Your task to perform on an android device: open the mobile data screen to see how much data has been used Image 0: 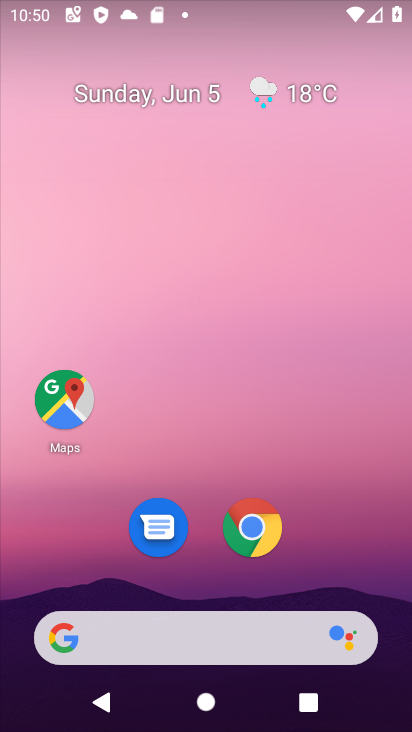
Step 0: drag from (305, 516) to (223, 42)
Your task to perform on an android device: open the mobile data screen to see how much data has been used Image 1: 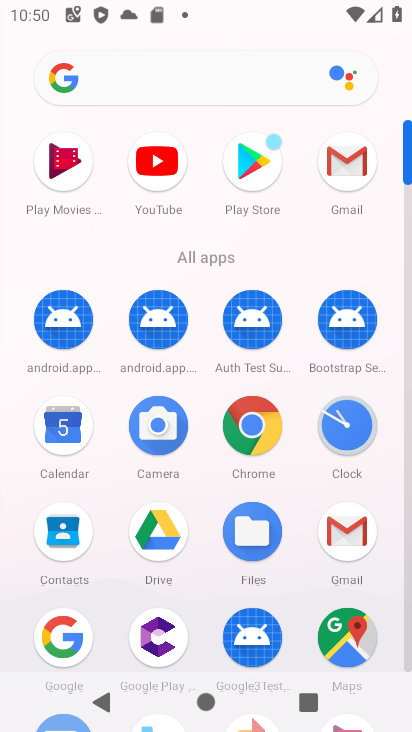
Step 1: drag from (145, 555) to (158, 72)
Your task to perform on an android device: open the mobile data screen to see how much data has been used Image 2: 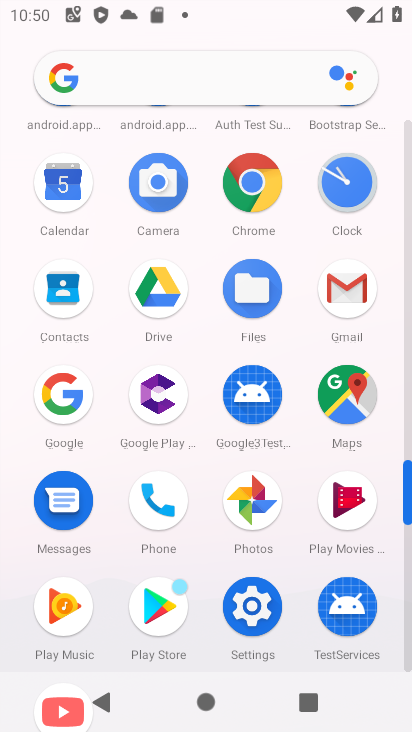
Step 2: click (267, 608)
Your task to perform on an android device: open the mobile data screen to see how much data has been used Image 3: 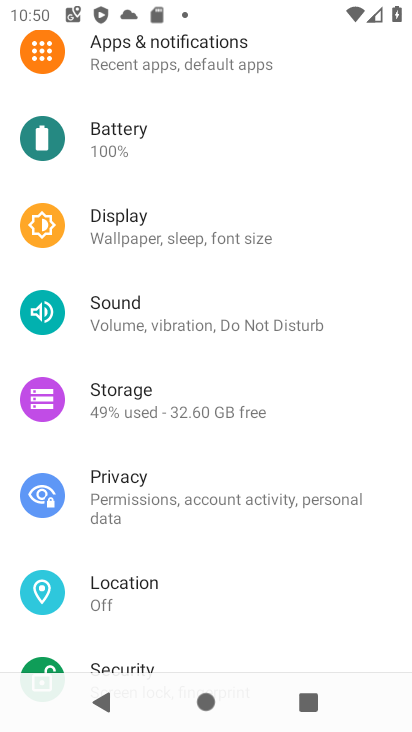
Step 3: drag from (211, 167) to (169, 704)
Your task to perform on an android device: open the mobile data screen to see how much data has been used Image 4: 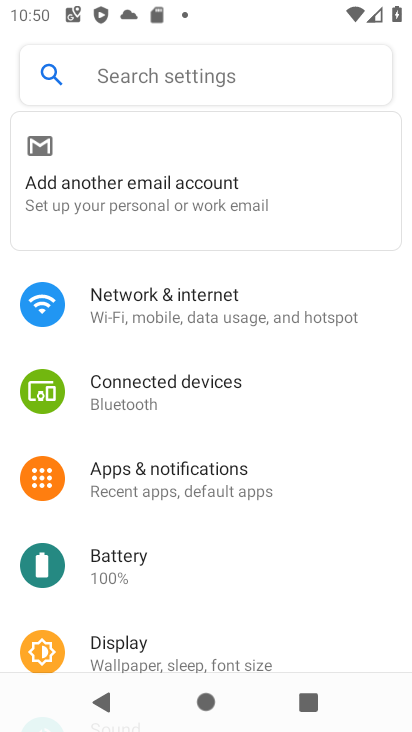
Step 4: click (188, 307)
Your task to perform on an android device: open the mobile data screen to see how much data has been used Image 5: 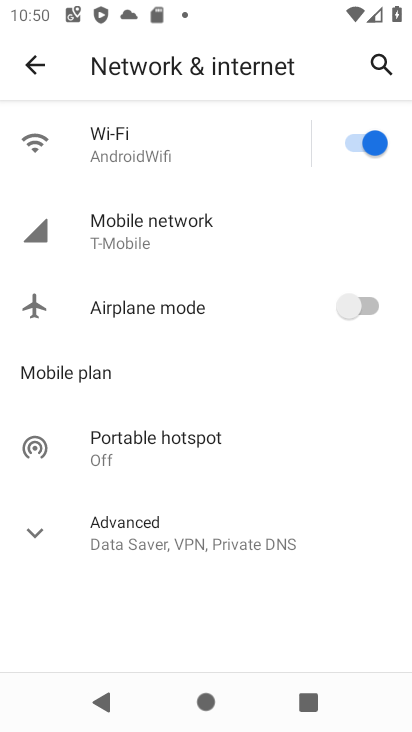
Step 5: click (165, 229)
Your task to perform on an android device: open the mobile data screen to see how much data has been used Image 6: 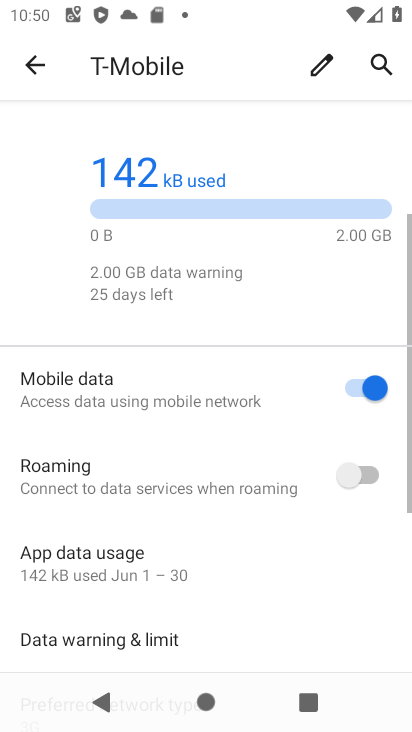
Step 6: task complete